Your task to perform on an android device: Go to internet settings Image 0: 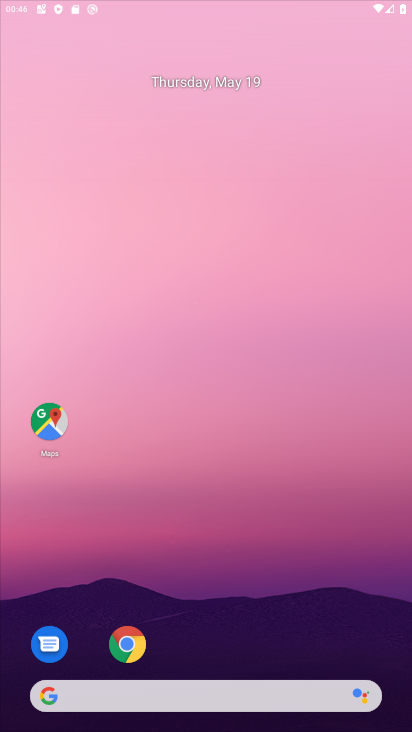
Step 0: click (350, 155)
Your task to perform on an android device: Go to internet settings Image 1: 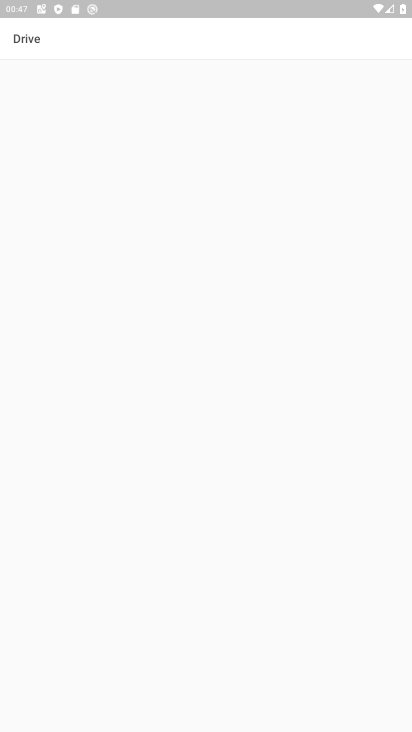
Step 1: press home button
Your task to perform on an android device: Go to internet settings Image 2: 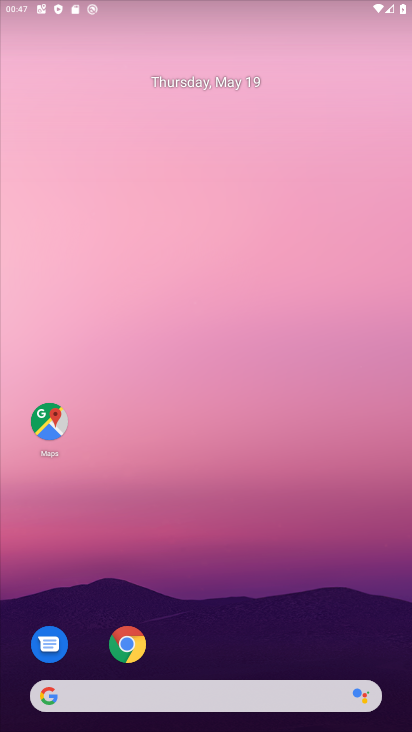
Step 2: drag from (381, 567) to (346, 115)
Your task to perform on an android device: Go to internet settings Image 3: 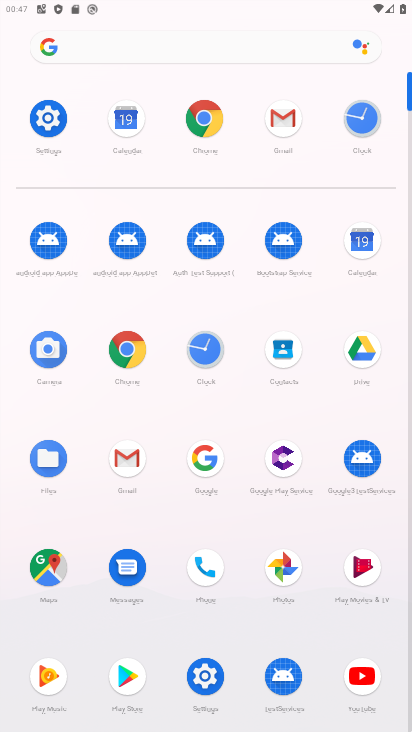
Step 3: click (210, 679)
Your task to perform on an android device: Go to internet settings Image 4: 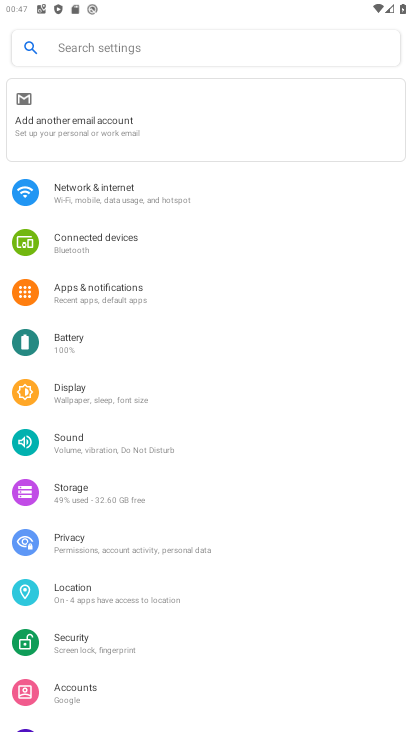
Step 4: click (153, 201)
Your task to perform on an android device: Go to internet settings Image 5: 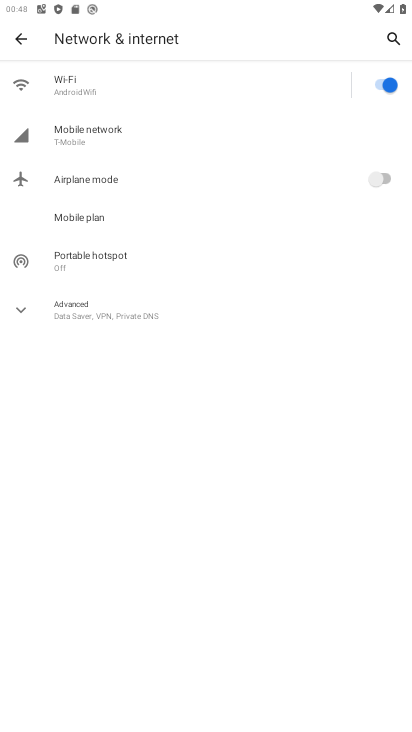
Step 5: task complete